Your task to perform on an android device: Open the Play Movies app and select the watchlist tab. Image 0: 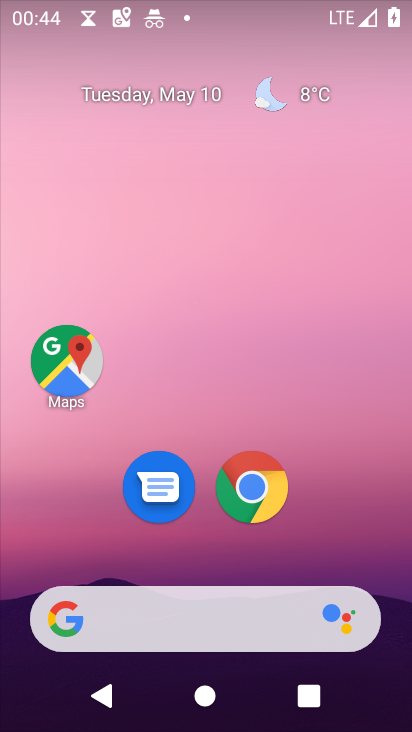
Step 0: drag from (208, 559) to (231, 114)
Your task to perform on an android device: Open the Play Movies app and select the watchlist tab. Image 1: 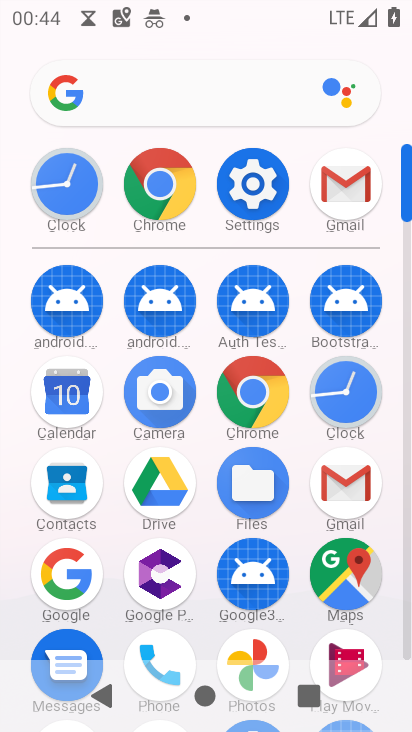
Step 1: drag from (296, 533) to (302, 229)
Your task to perform on an android device: Open the Play Movies app and select the watchlist tab. Image 2: 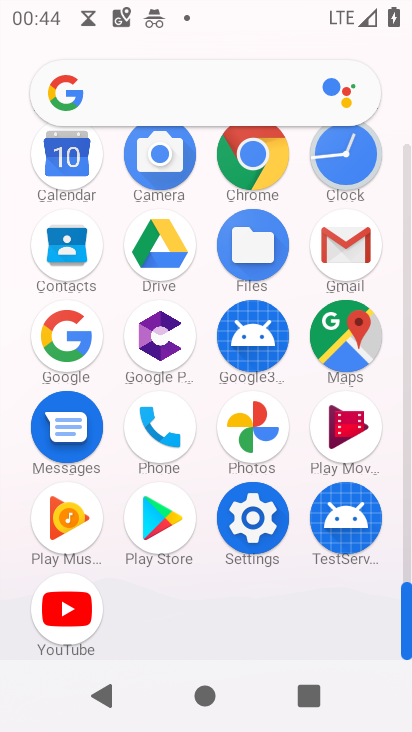
Step 2: click (340, 420)
Your task to perform on an android device: Open the Play Movies app and select the watchlist tab. Image 3: 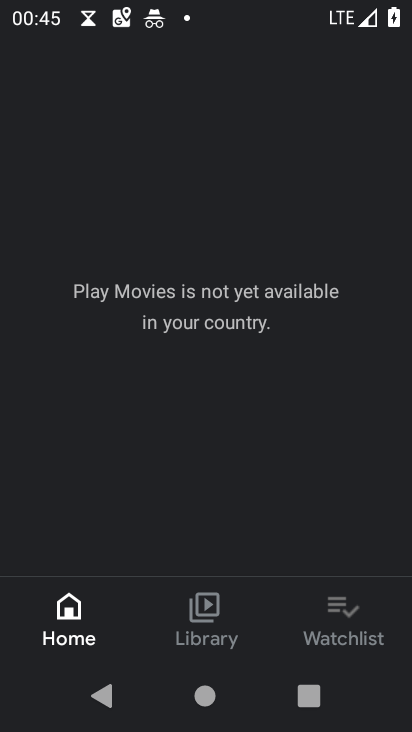
Step 3: click (336, 609)
Your task to perform on an android device: Open the Play Movies app and select the watchlist tab. Image 4: 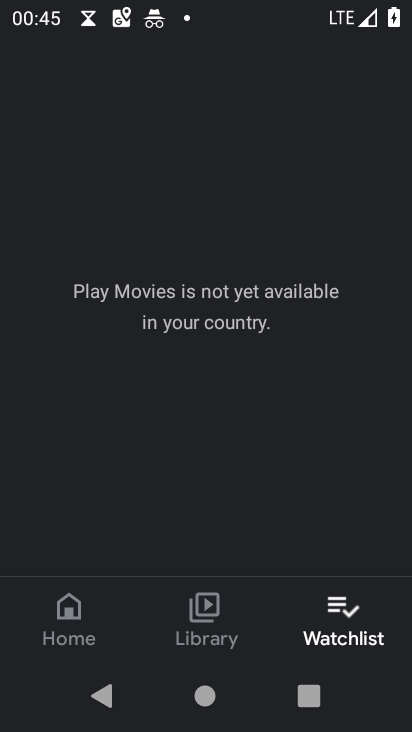
Step 4: task complete